Your task to perform on an android device: What's the weather going to be this weekend? Image 0: 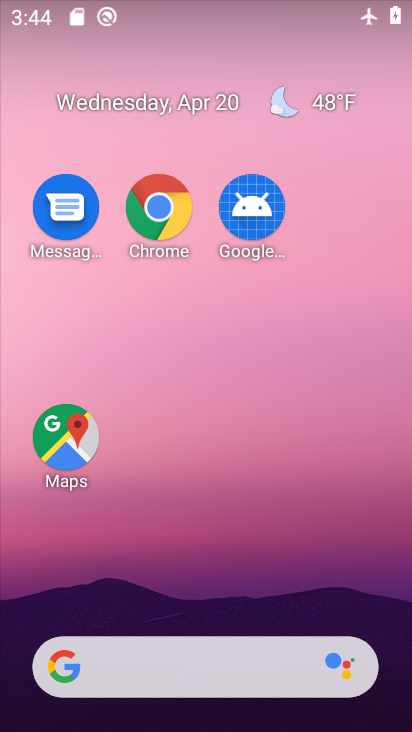
Step 0: drag from (270, 567) to (238, 155)
Your task to perform on an android device: What's the weather going to be this weekend? Image 1: 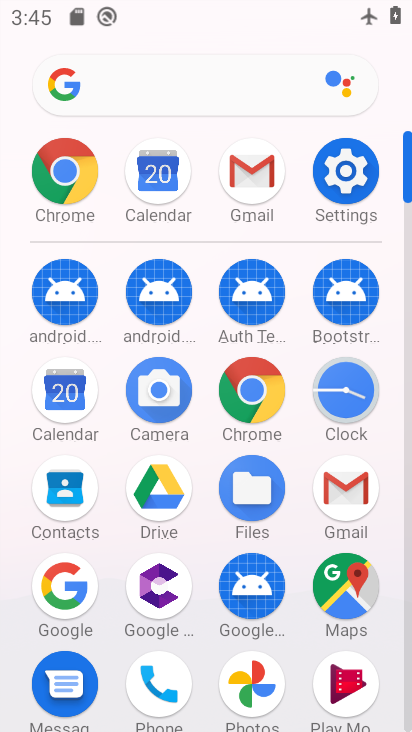
Step 1: click (64, 597)
Your task to perform on an android device: What's the weather going to be this weekend? Image 2: 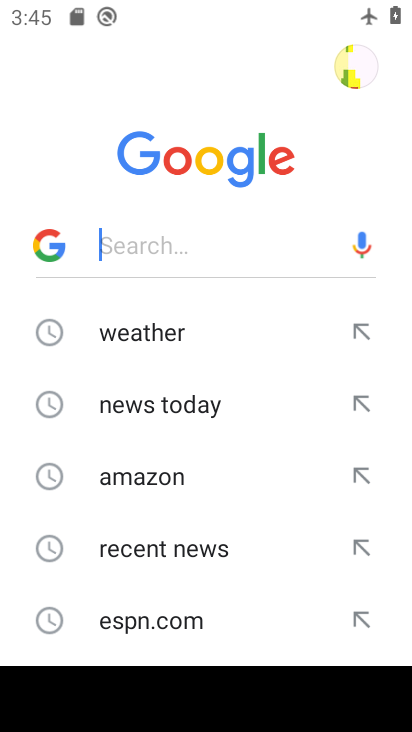
Step 2: click (184, 250)
Your task to perform on an android device: What's the weather going to be this weekend? Image 3: 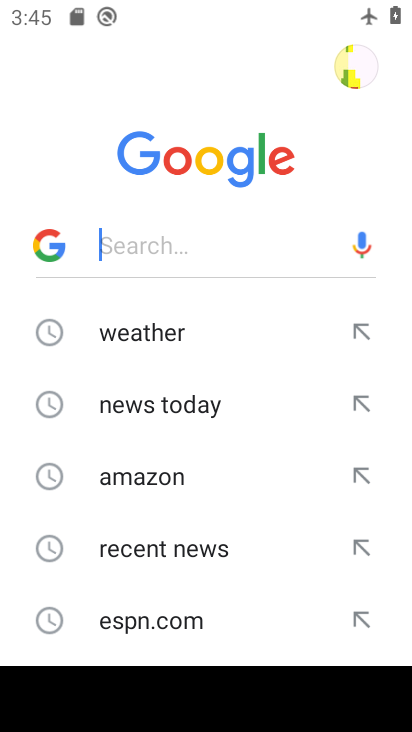
Step 3: type "we"
Your task to perform on an android device: What's the weather going to be this weekend? Image 4: 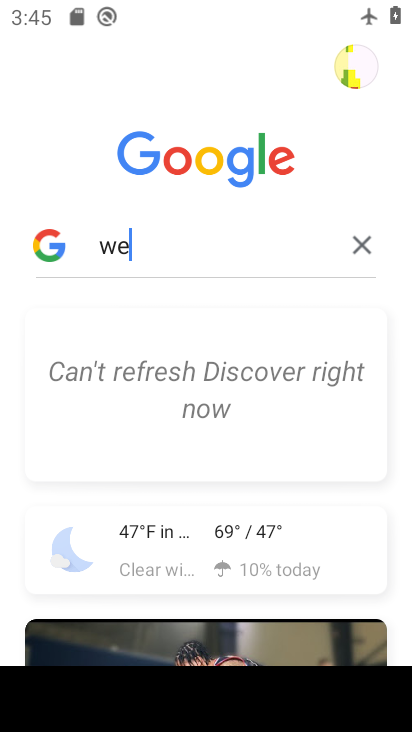
Step 4: type "ather  saturday"
Your task to perform on an android device: What's the weather going to be this weekend? Image 5: 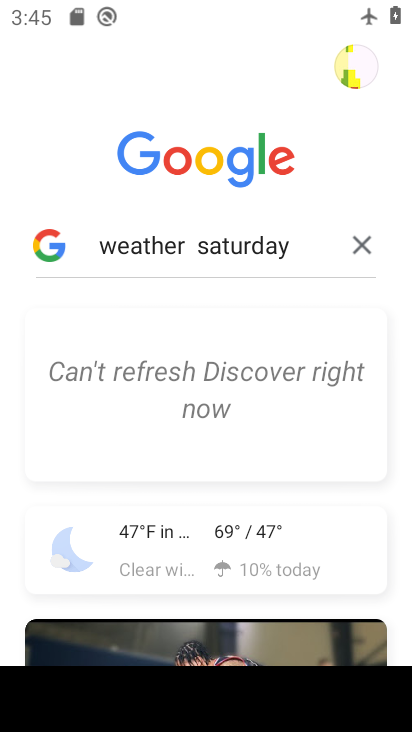
Step 5: task complete